Your task to perform on an android device: Search for Mexican restaurants on Maps Image 0: 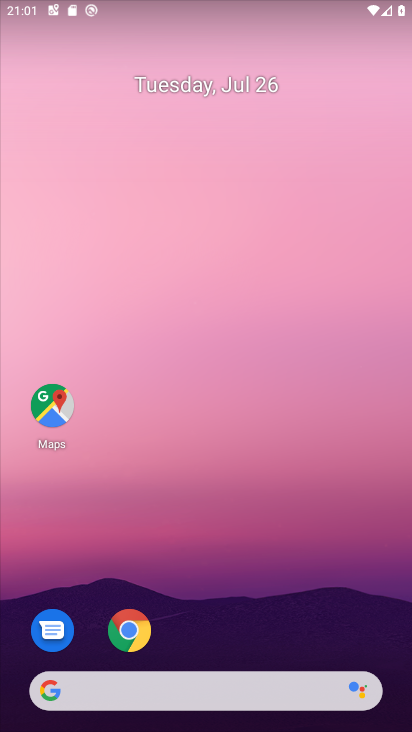
Step 0: click (43, 403)
Your task to perform on an android device: Search for Mexican restaurants on Maps Image 1: 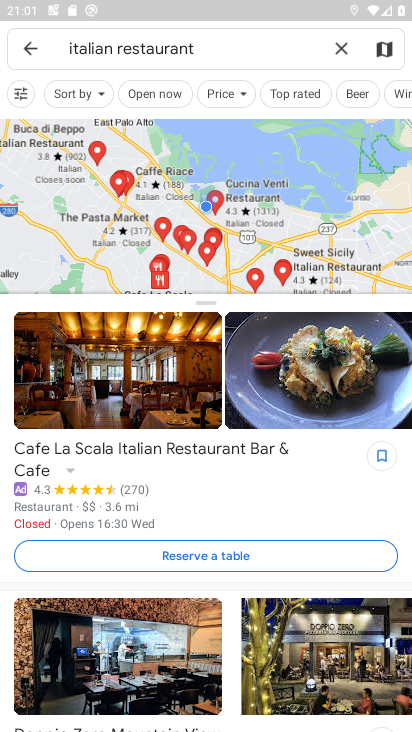
Step 1: click (341, 47)
Your task to perform on an android device: Search for Mexican restaurants on Maps Image 2: 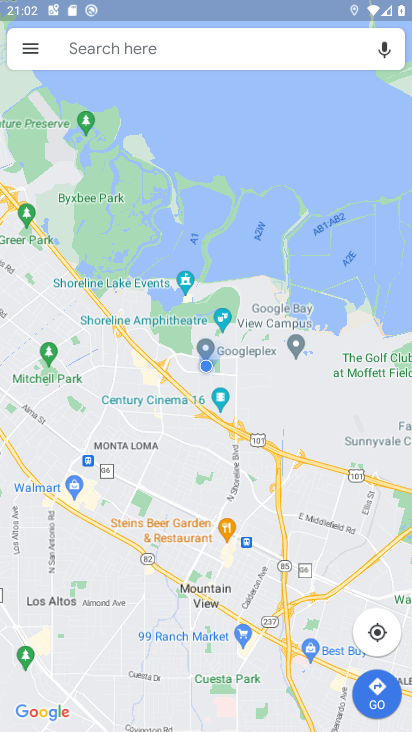
Step 2: click (186, 59)
Your task to perform on an android device: Search for Mexican restaurants on Maps Image 3: 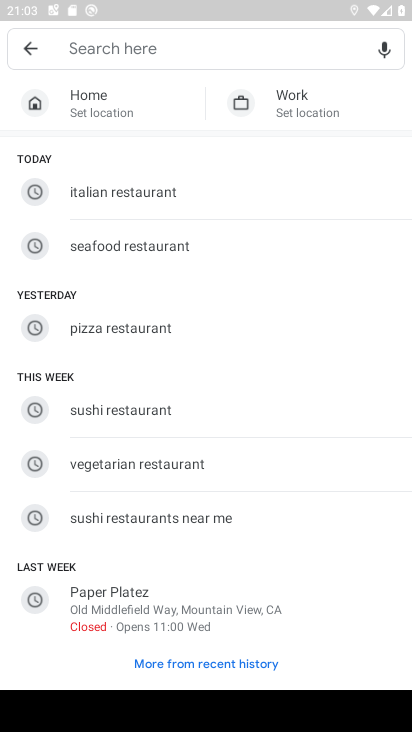
Step 3: type "Mexican restaurants"
Your task to perform on an android device: Search for Mexican restaurants on Maps Image 4: 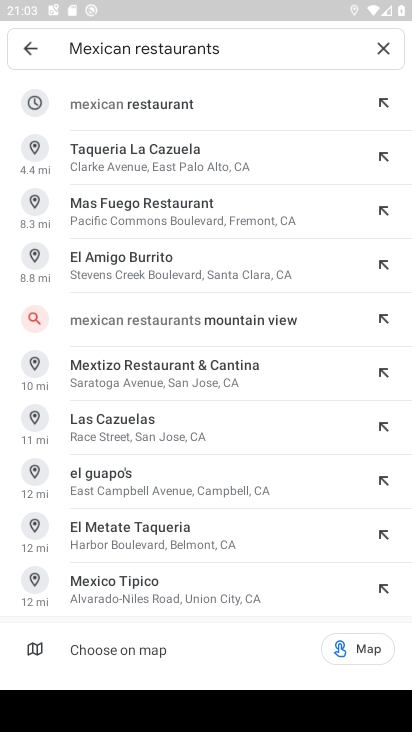
Step 4: click (100, 111)
Your task to perform on an android device: Search for Mexican restaurants on Maps Image 5: 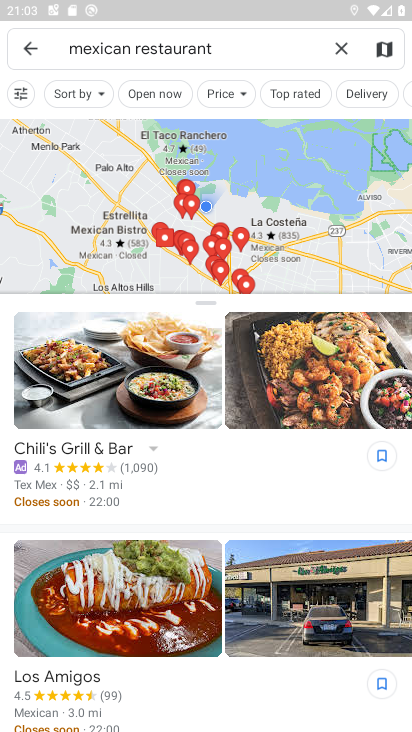
Step 5: task complete